Your task to perform on an android device: check out phone information Image 0: 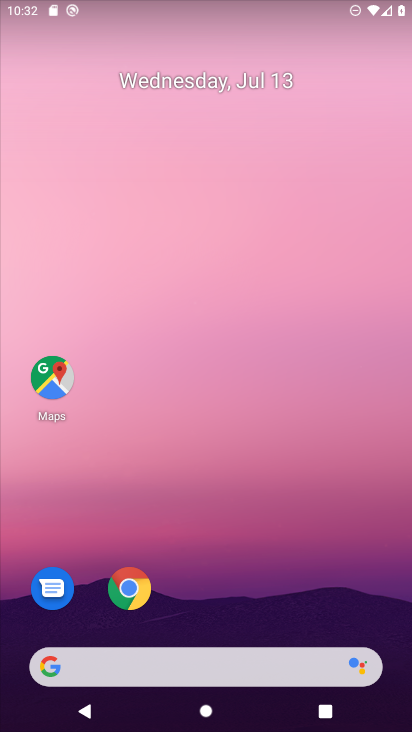
Step 0: drag from (209, 609) to (223, 41)
Your task to perform on an android device: check out phone information Image 1: 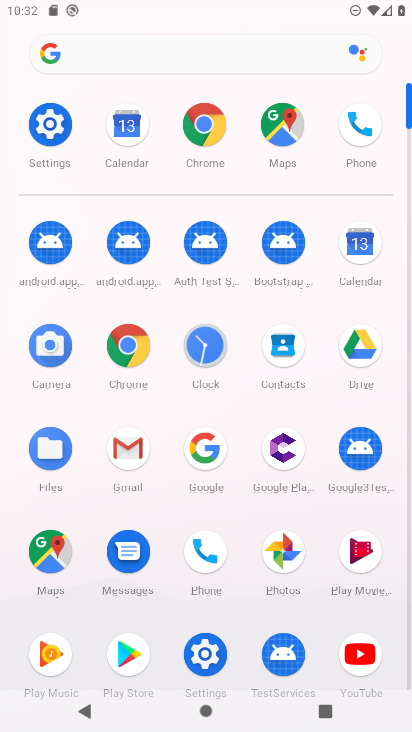
Step 1: click (44, 139)
Your task to perform on an android device: check out phone information Image 2: 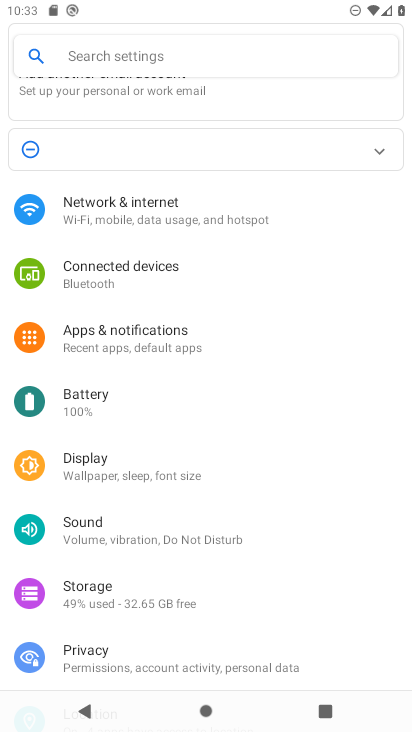
Step 2: drag from (208, 562) to (187, 218)
Your task to perform on an android device: check out phone information Image 3: 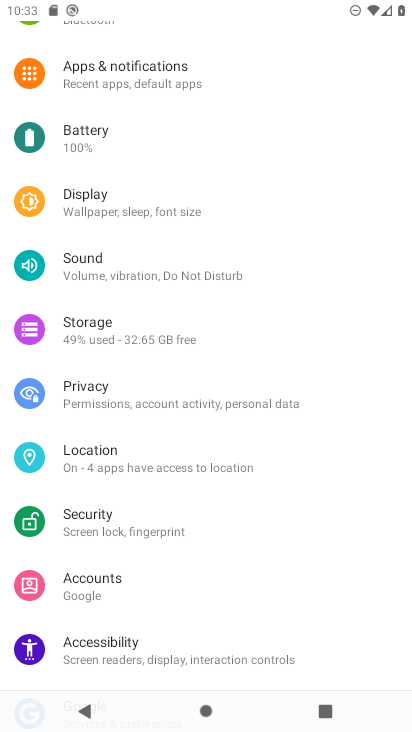
Step 3: drag from (211, 490) to (155, 160)
Your task to perform on an android device: check out phone information Image 4: 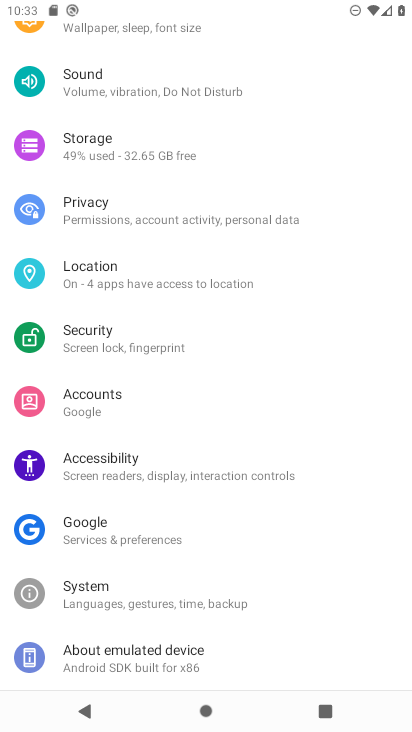
Step 4: click (190, 659)
Your task to perform on an android device: check out phone information Image 5: 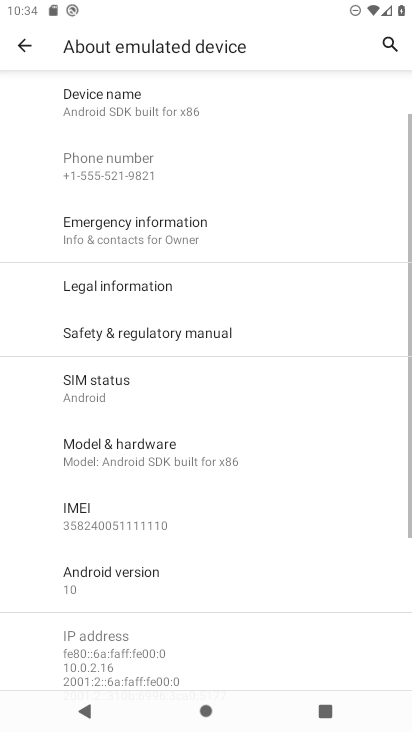
Step 5: task complete